Your task to perform on an android device: Go to notification settings Image 0: 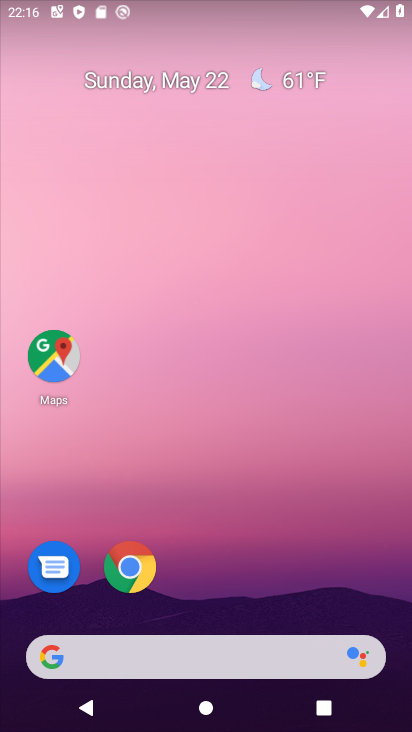
Step 0: drag from (237, 615) to (292, 12)
Your task to perform on an android device: Go to notification settings Image 1: 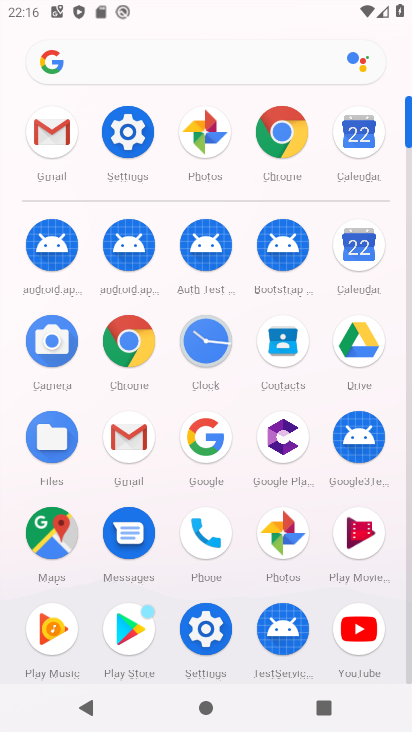
Step 1: click (119, 121)
Your task to perform on an android device: Go to notification settings Image 2: 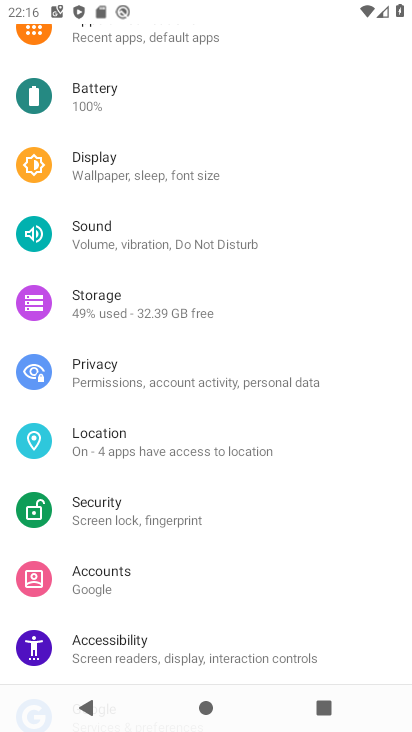
Step 2: drag from (140, 204) to (172, 466)
Your task to perform on an android device: Go to notification settings Image 3: 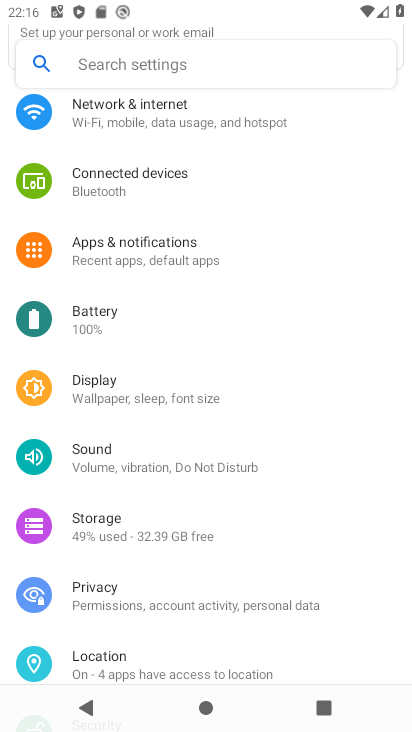
Step 3: click (152, 261)
Your task to perform on an android device: Go to notification settings Image 4: 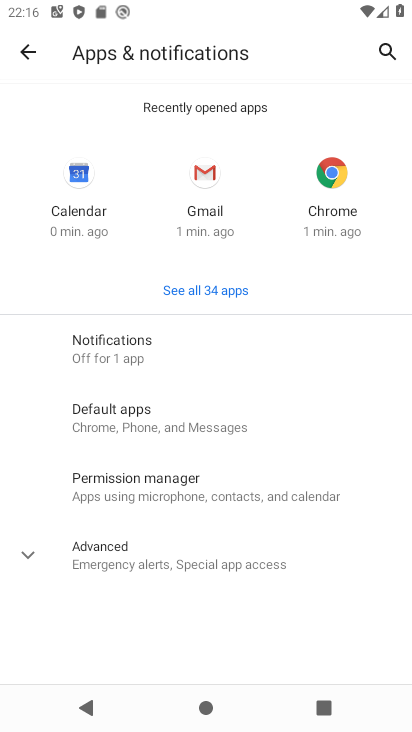
Step 4: click (141, 336)
Your task to perform on an android device: Go to notification settings Image 5: 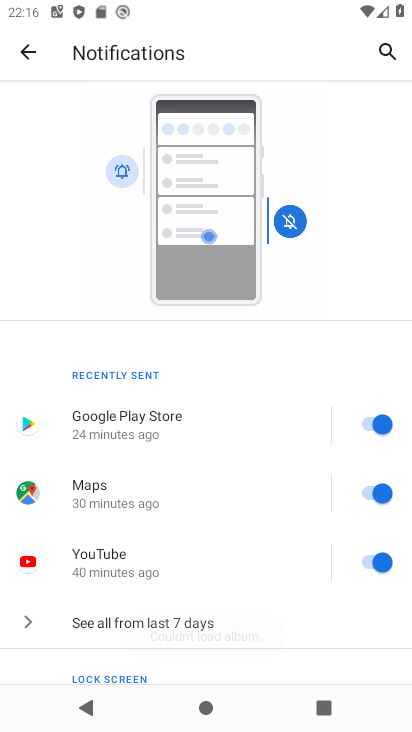
Step 5: task complete